Your task to perform on an android device: Check the news Image 0: 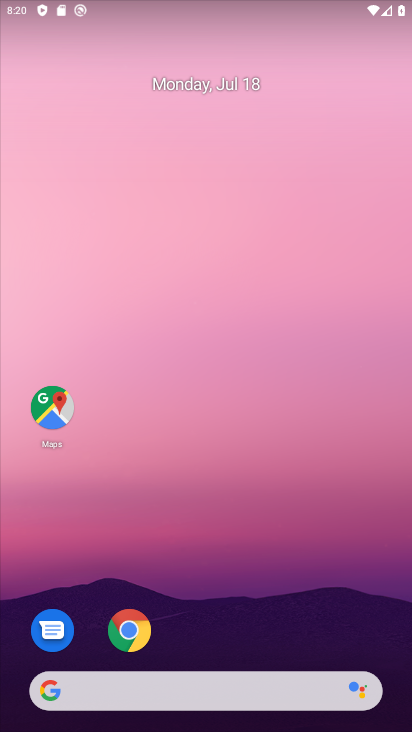
Step 0: drag from (261, 612) to (254, 226)
Your task to perform on an android device: Check the news Image 1: 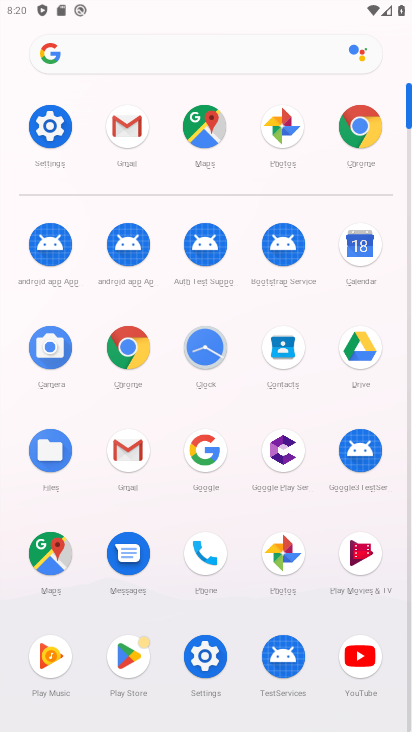
Step 1: click (350, 118)
Your task to perform on an android device: Check the news Image 2: 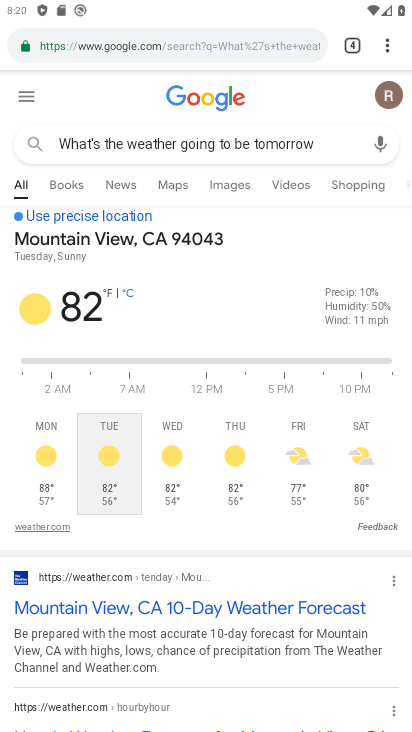
Step 2: click (393, 44)
Your task to perform on an android device: Check the news Image 3: 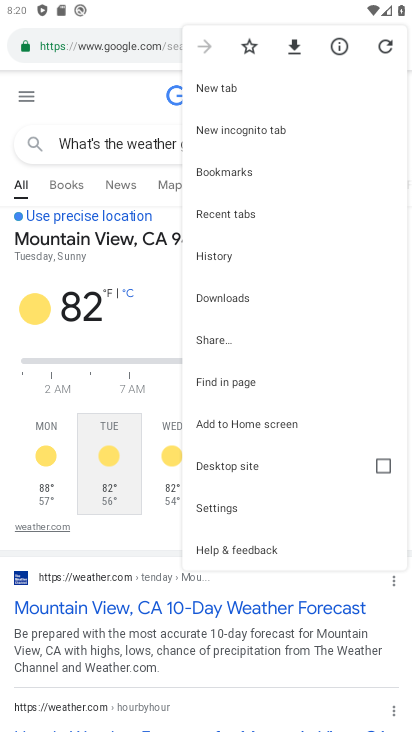
Step 3: click (272, 94)
Your task to perform on an android device: Check the news Image 4: 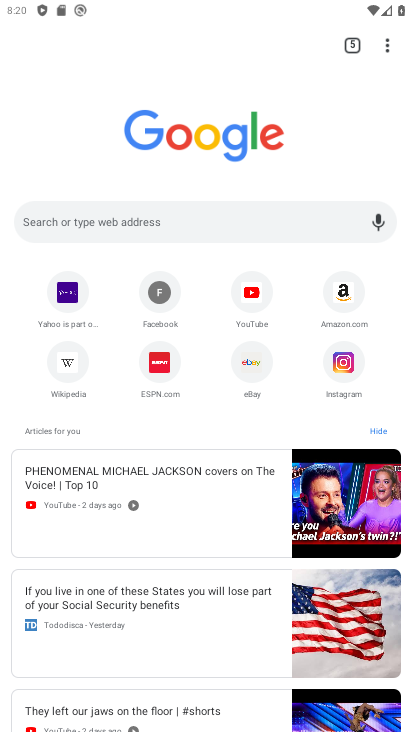
Step 4: click (267, 205)
Your task to perform on an android device: Check the news Image 5: 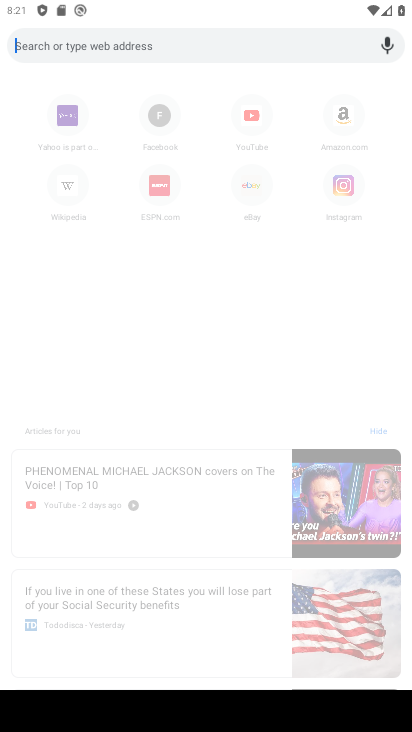
Step 5: click (254, 28)
Your task to perform on an android device: Check the news Image 6: 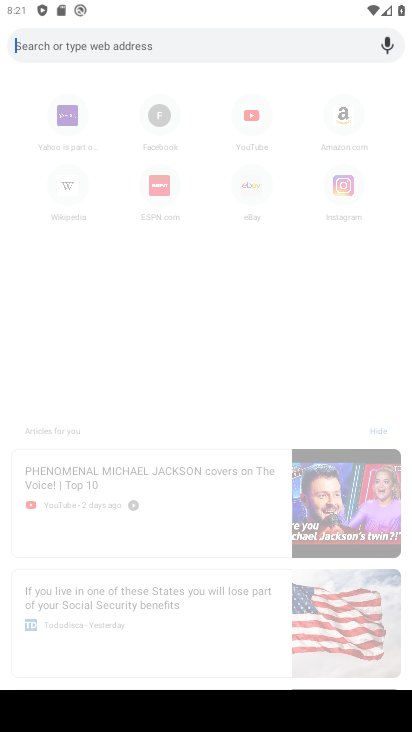
Step 6: type "Check the news "
Your task to perform on an android device: Check the news Image 7: 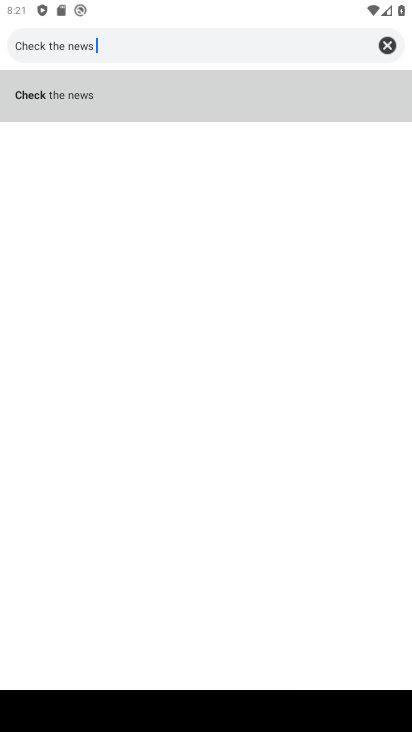
Step 7: click (246, 77)
Your task to perform on an android device: Check the news Image 8: 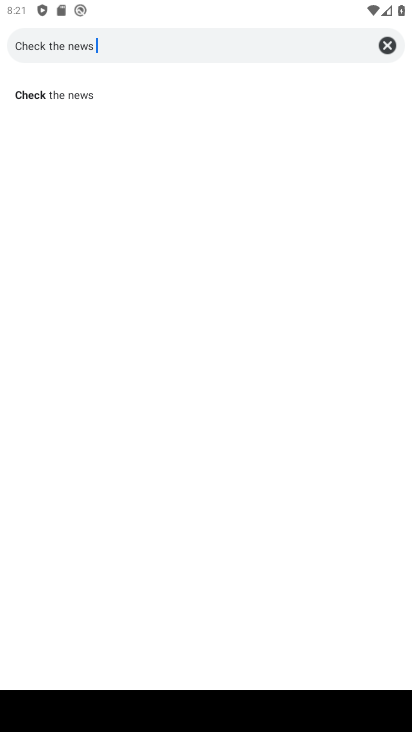
Step 8: click (105, 91)
Your task to perform on an android device: Check the news Image 9: 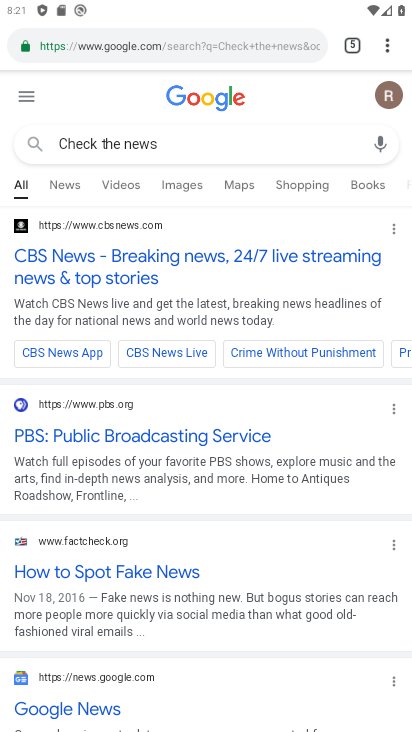
Step 9: task complete